Your task to perform on an android device: turn on location history Image 0: 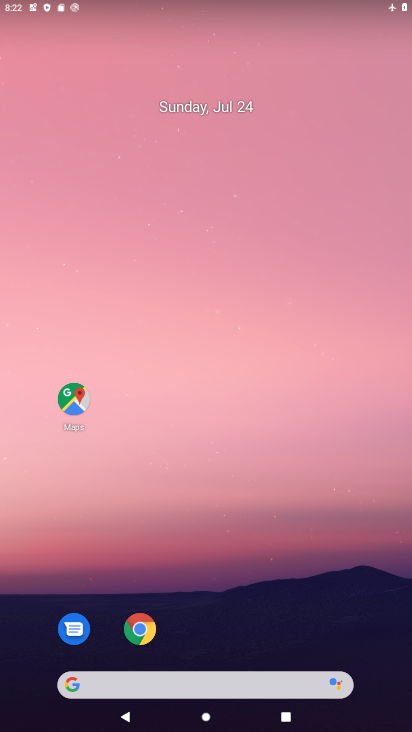
Step 0: drag from (187, 653) to (3, 395)
Your task to perform on an android device: turn on location history Image 1: 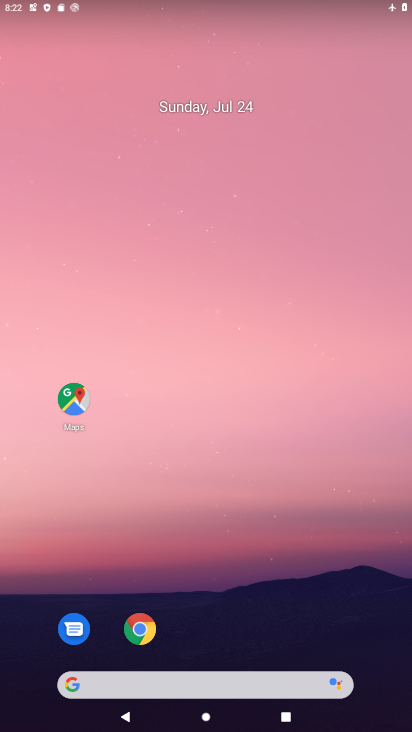
Step 1: drag from (234, 677) to (353, 3)
Your task to perform on an android device: turn on location history Image 2: 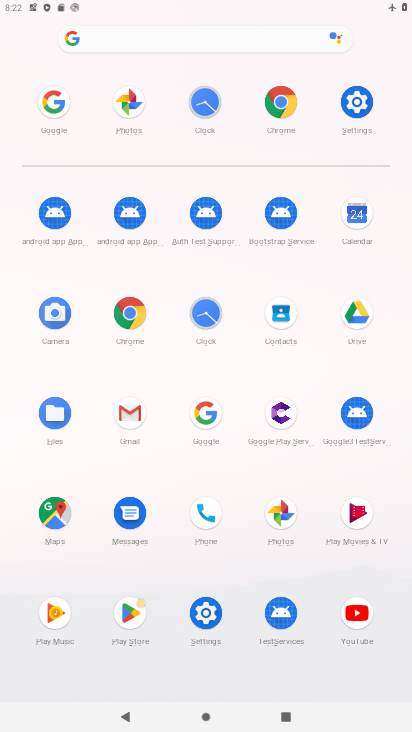
Step 2: click (344, 129)
Your task to perform on an android device: turn on location history Image 3: 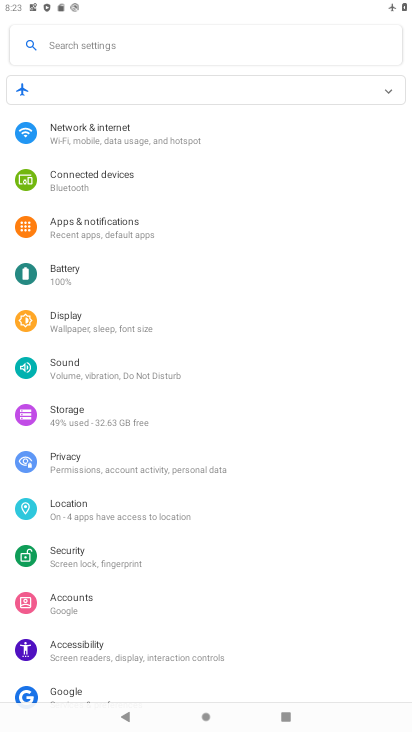
Step 3: click (89, 512)
Your task to perform on an android device: turn on location history Image 4: 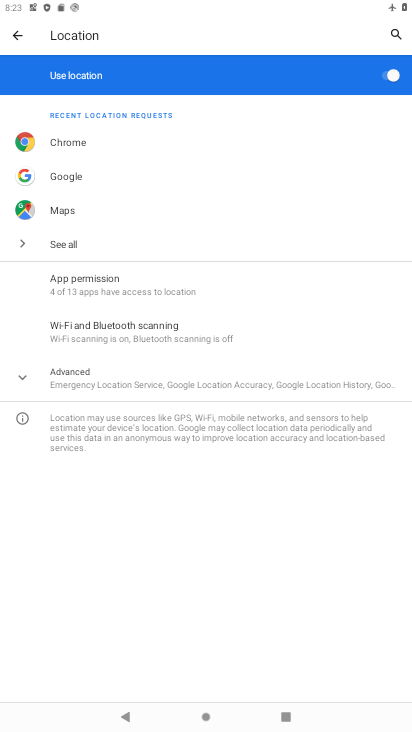
Step 4: click (95, 370)
Your task to perform on an android device: turn on location history Image 5: 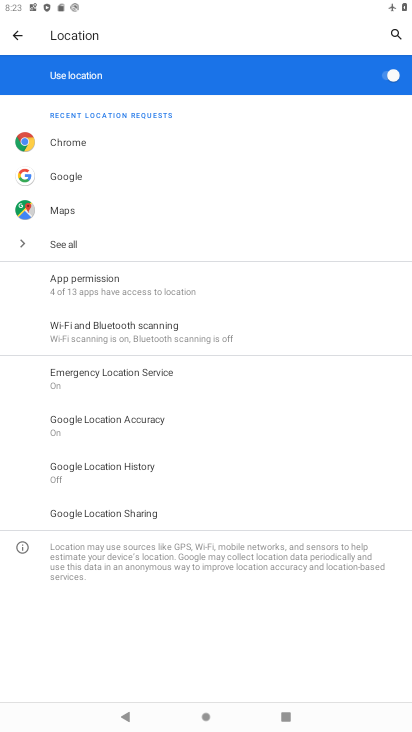
Step 5: click (133, 472)
Your task to perform on an android device: turn on location history Image 6: 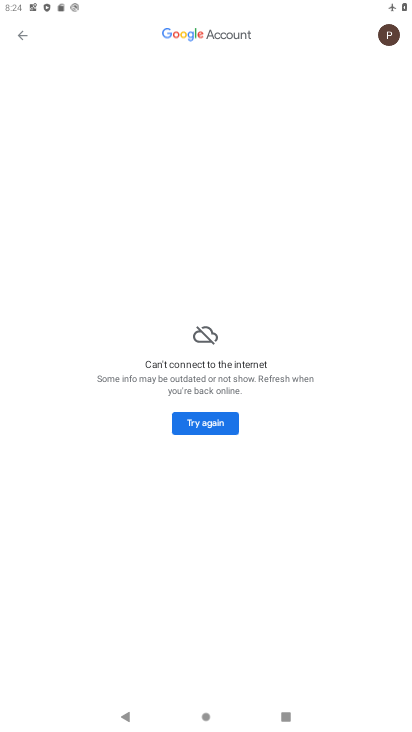
Step 6: click (234, 426)
Your task to perform on an android device: turn on location history Image 7: 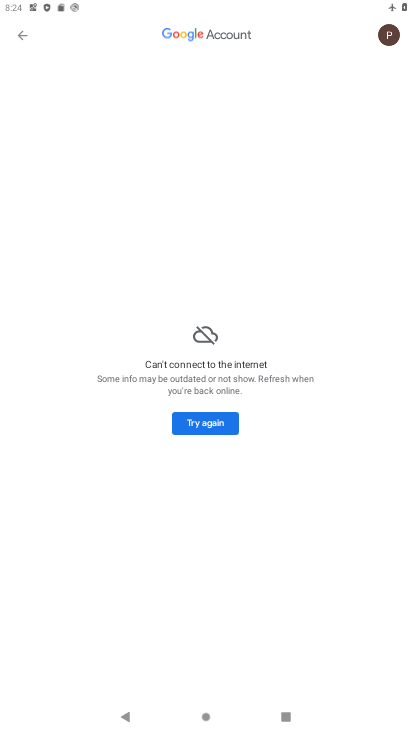
Step 7: task complete